Your task to perform on an android device: toggle javascript in the chrome app Image 0: 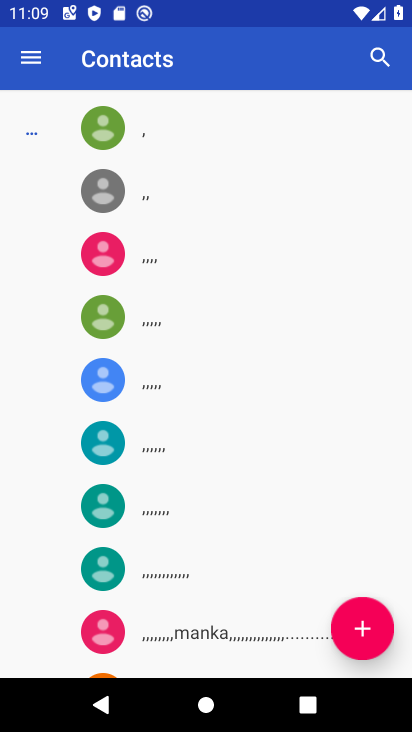
Step 0: press home button
Your task to perform on an android device: toggle javascript in the chrome app Image 1: 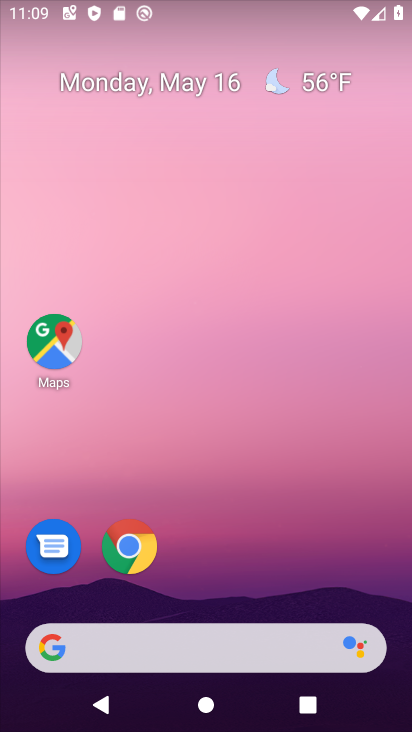
Step 1: drag from (308, 550) to (297, 100)
Your task to perform on an android device: toggle javascript in the chrome app Image 2: 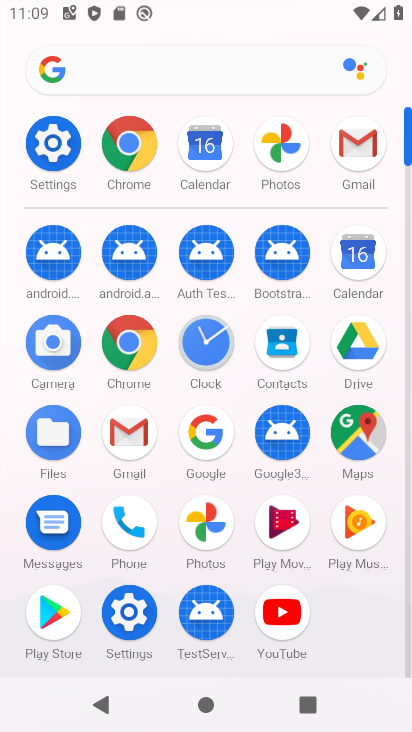
Step 2: click (117, 162)
Your task to perform on an android device: toggle javascript in the chrome app Image 3: 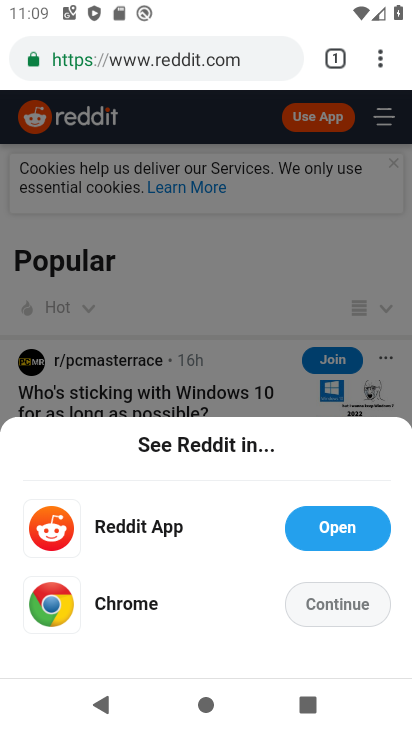
Step 3: drag from (378, 71) to (168, 585)
Your task to perform on an android device: toggle javascript in the chrome app Image 4: 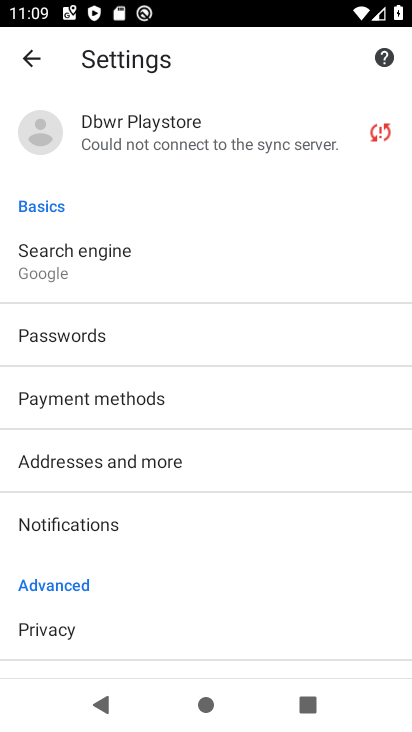
Step 4: drag from (137, 626) to (147, 248)
Your task to perform on an android device: toggle javascript in the chrome app Image 5: 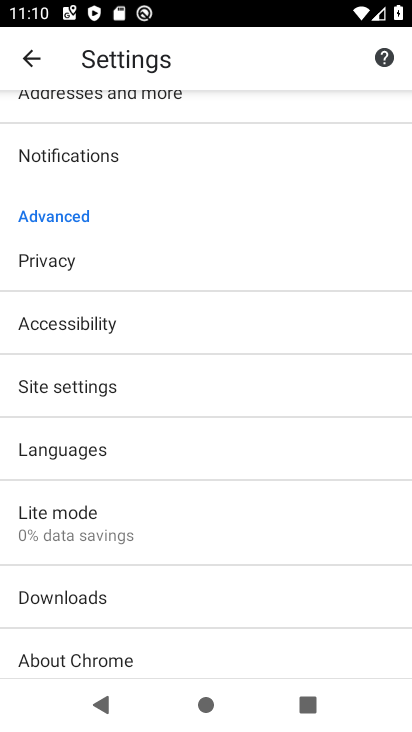
Step 5: click (68, 385)
Your task to perform on an android device: toggle javascript in the chrome app Image 6: 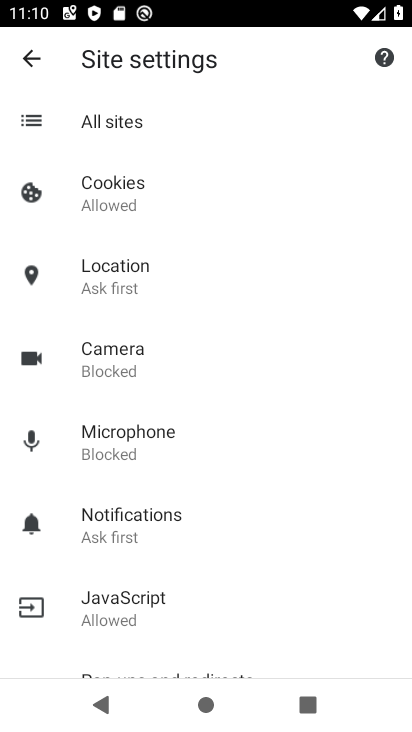
Step 6: drag from (160, 525) to (117, 222)
Your task to perform on an android device: toggle javascript in the chrome app Image 7: 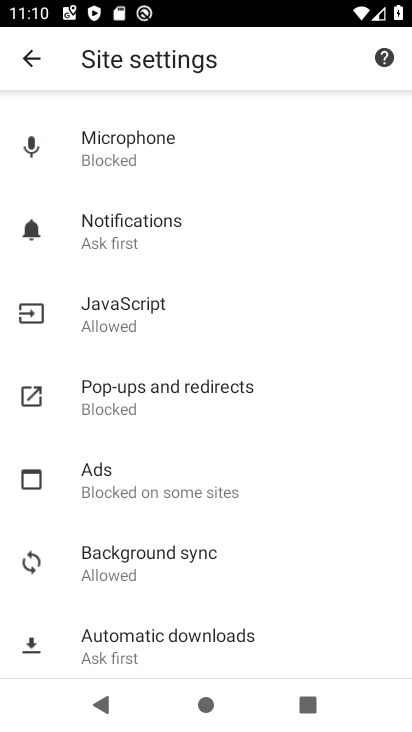
Step 7: click (109, 317)
Your task to perform on an android device: toggle javascript in the chrome app Image 8: 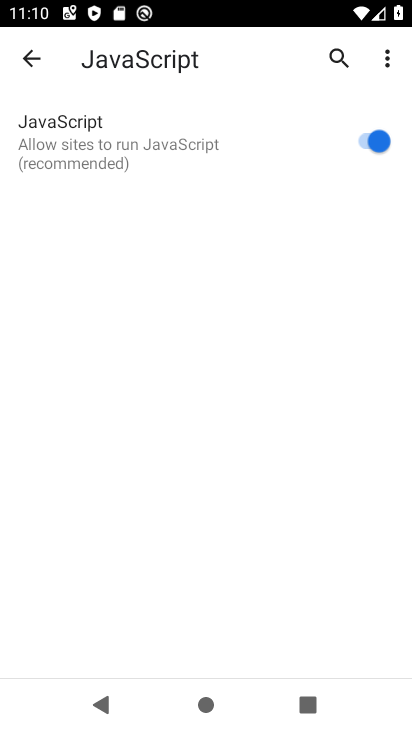
Step 8: click (374, 141)
Your task to perform on an android device: toggle javascript in the chrome app Image 9: 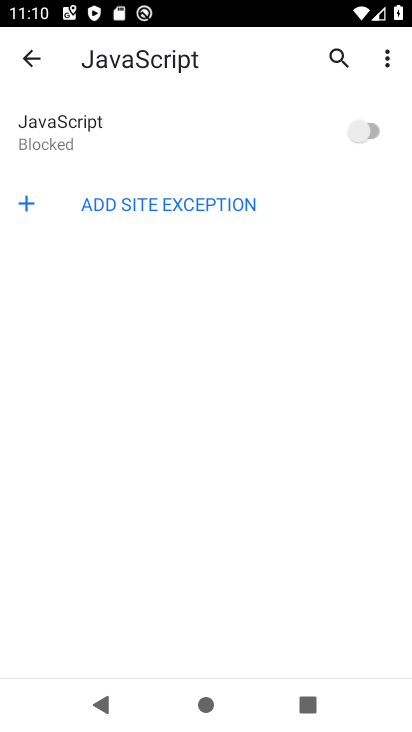
Step 9: task complete